Your task to perform on an android device: Toggle the flashlight Image 0: 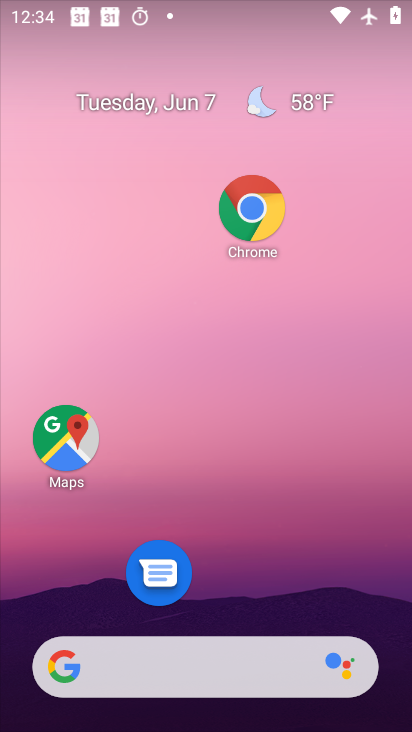
Step 0: drag from (220, 596) to (238, 191)
Your task to perform on an android device: Toggle the flashlight Image 1: 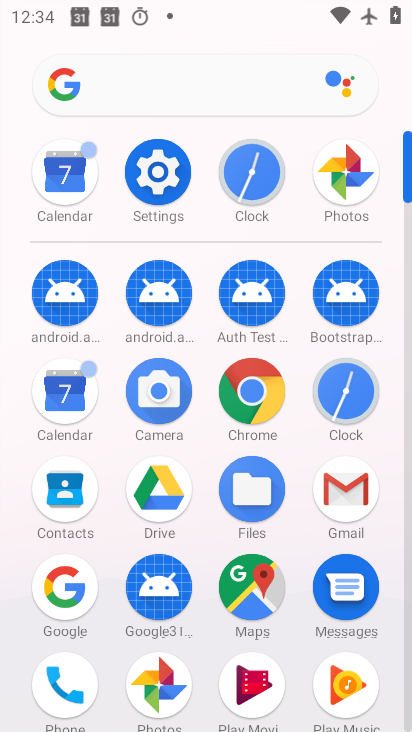
Step 1: click (170, 193)
Your task to perform on an android device: Toggle the flashlight Image 2: 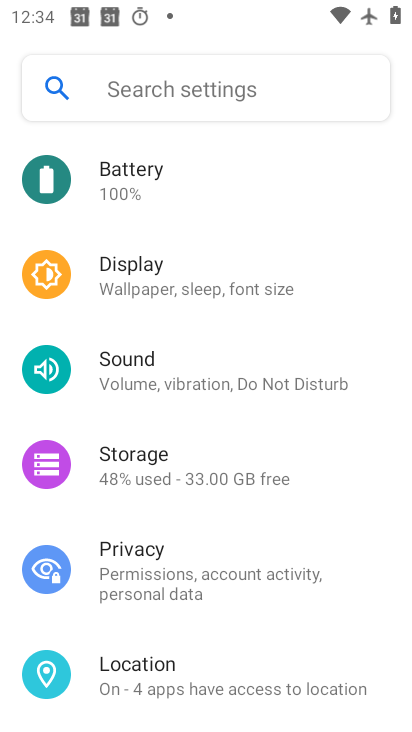
Step 2: task complete